Your task to perform on an android device: Do I have any events tomorrow? Image 0: 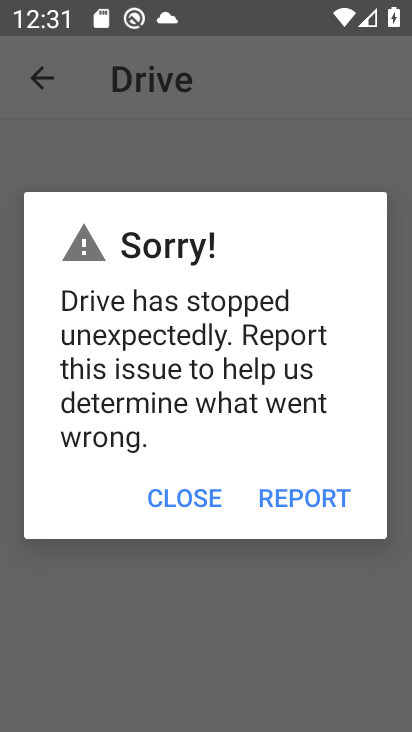
Step 0: press home button
Your task to perform on an android device: Do I have any events tomorrow? Image 1: 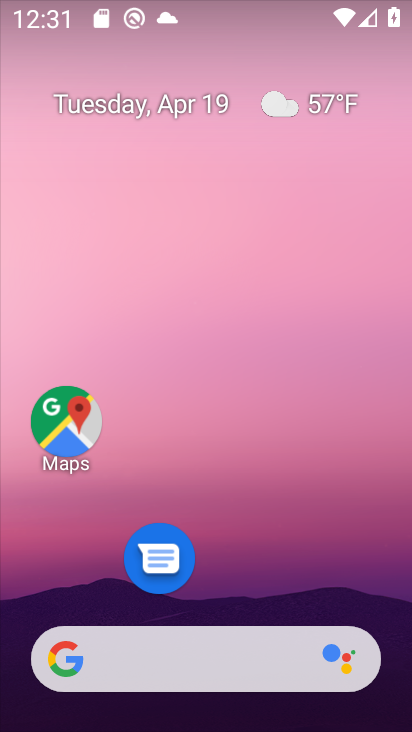
Step 1: drag from (247, 413) to (225, 147)
Your task to perform on an android device: Do I have any events tomorrow? Image 2: 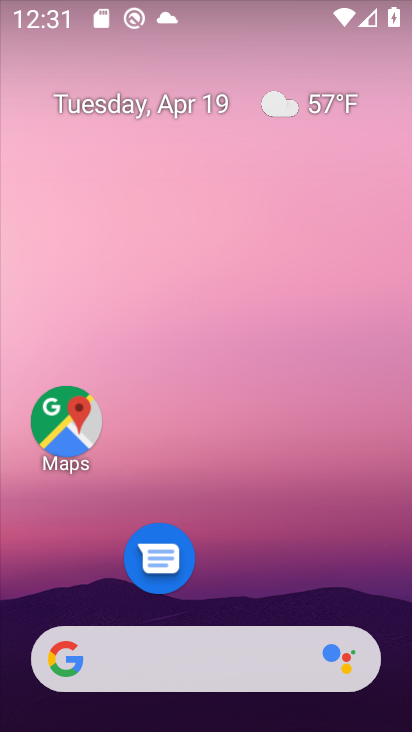
Step 2: drag from (286, 592) to (211, 76)
Your task to perform on an android device: Do I have any events tomorrow? Image 3: 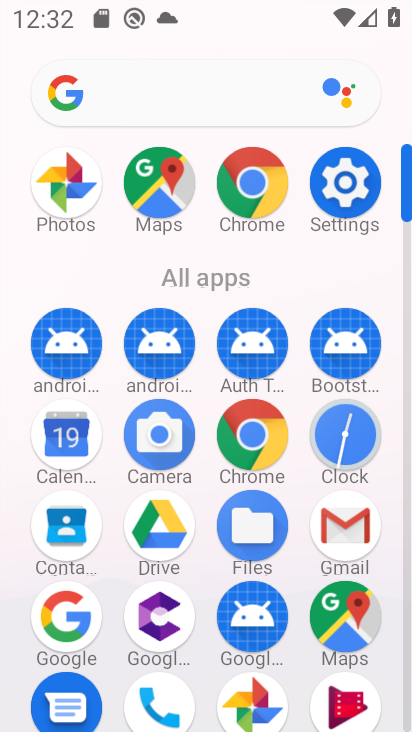
Step 3: click (82, 437)
Your task to perform on an android device: Do I have any events tomorrow? Image 4: 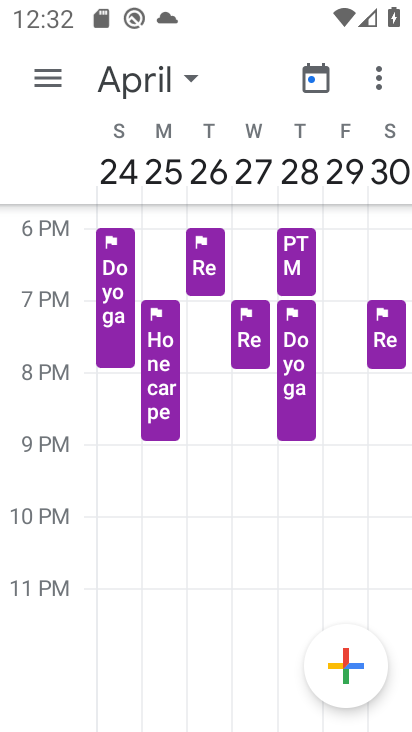
Step 4: drag from (129, 171) to (402, 177)
Your task to perform on an android device: Do I have any events tomorrow? Image 5: 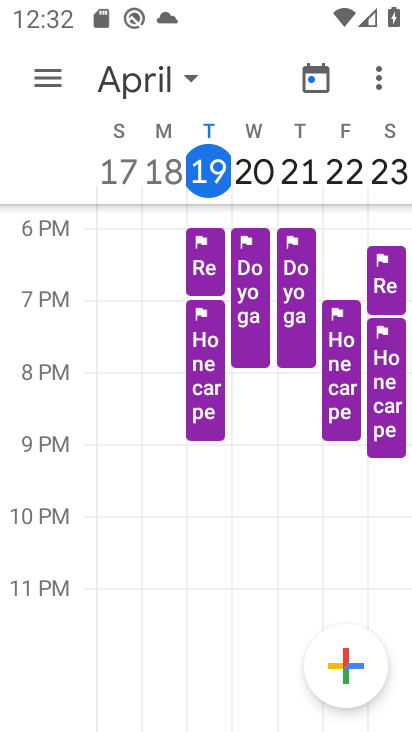
Step 5: click (148, 170)
Your task to perform on an android device: Do I have any events tomorrow? Image 6: 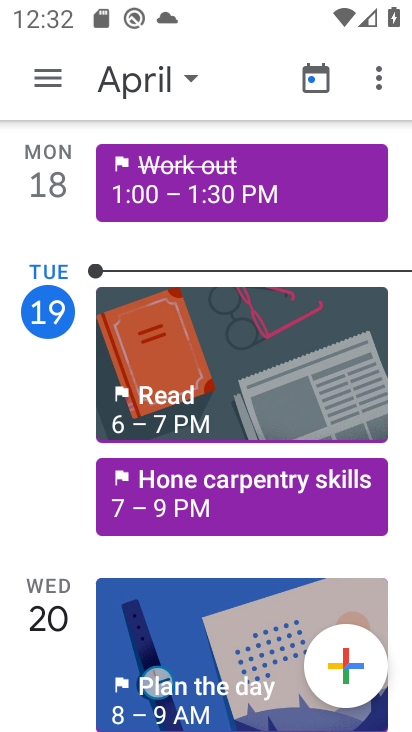
Step 6: task complete